Your task to perform on an android device: Clear the cart on amazon.com. Search for bose soundlink mini on amazon.com, select the first entry, and add it to the cart. Image 0: 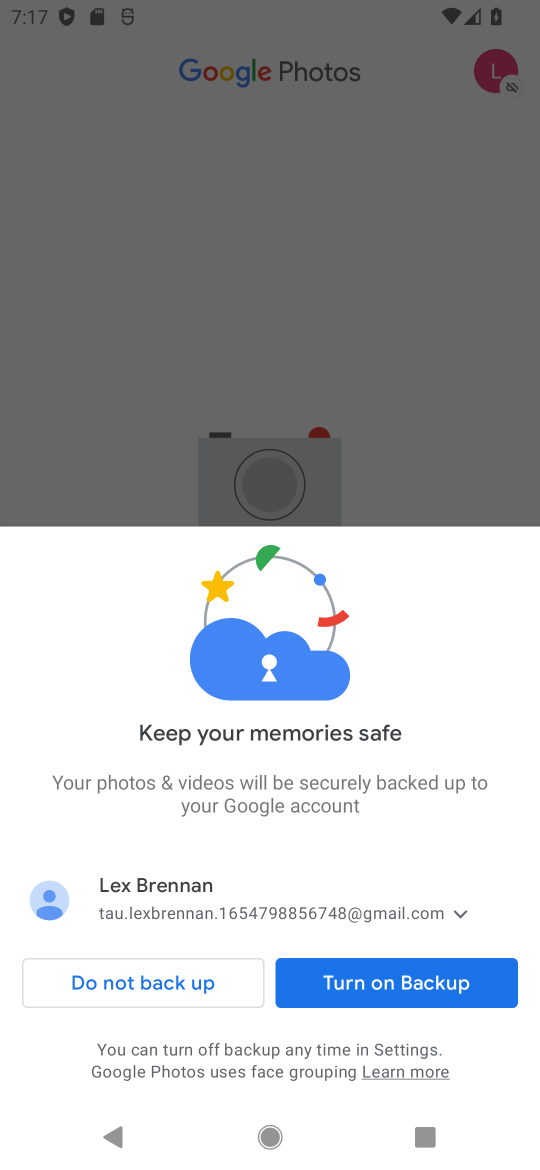
Step 0: press home button
Your task to perform on an android device: Clear the cart on amazon.com. Search for bose soundlink mini on amazon.com, select the first entry, and add it to the cart. Image 1: 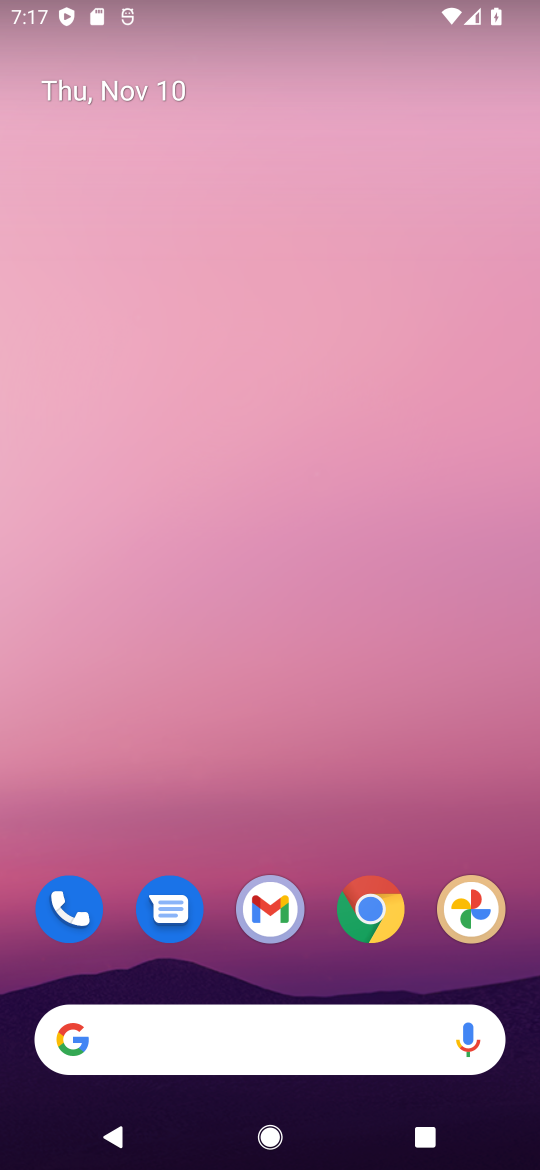
Step 1: drag from (146, 974) to (272, 232)
Your task to perform on an android device: Clear the cart on amazon.com. Search for bose soundlink mini on amazon.com, select the first entry, and add it to the cart. Image 2: 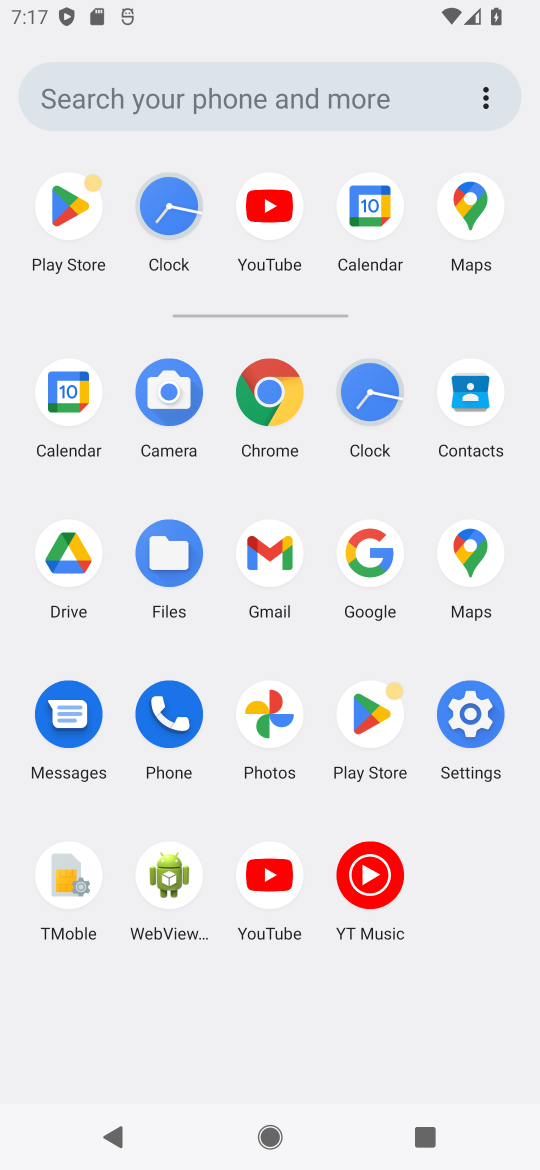
Step 2: click (353, 550)
Your task to perform on an android device: Clear the cart on amazon.com. Search for bose soundlink mini on amazon.com, select the first entry, and add it to the cart. Image 3: 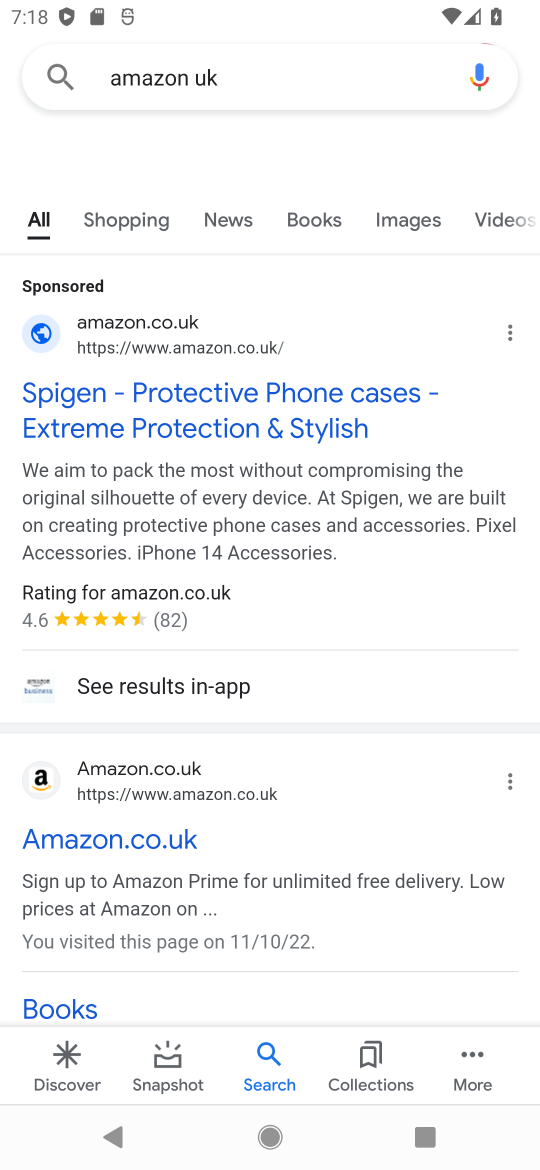
Step 3: click (243, 73)
Your task to perform on an android device: Clear the cart on amazon.com. Search for bose soundlink mini on amazon.com, select the first entry, and add it to the cart. Image 4: 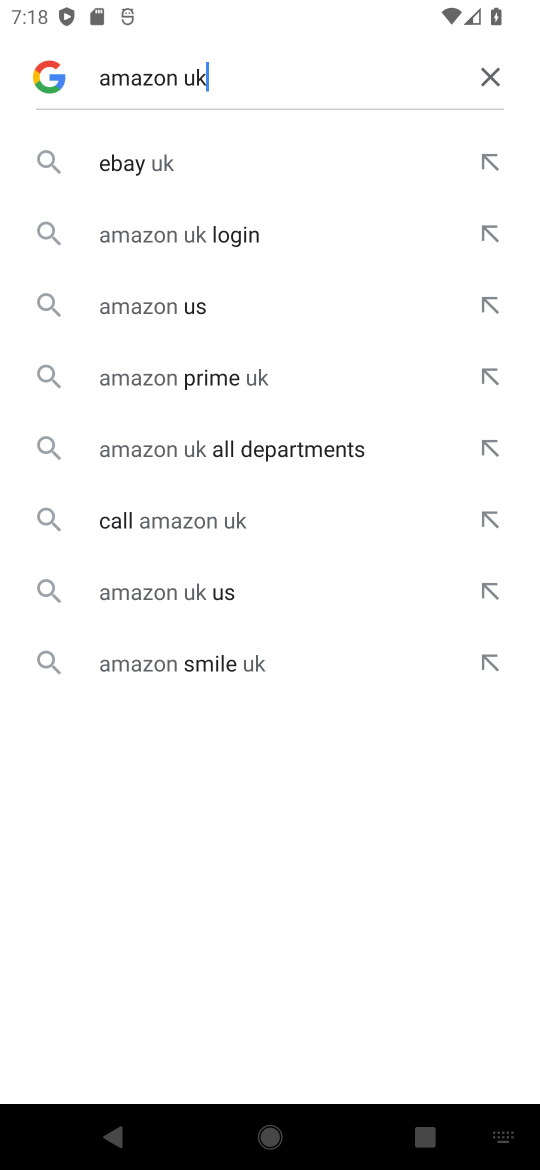
Step 4: click (169, 301)
Your task to perform on an android device: Clear the cart on amazon.com. Search for bose soundlink mini on amazon.com, select the first entry, and add it to the cart. Image 5: 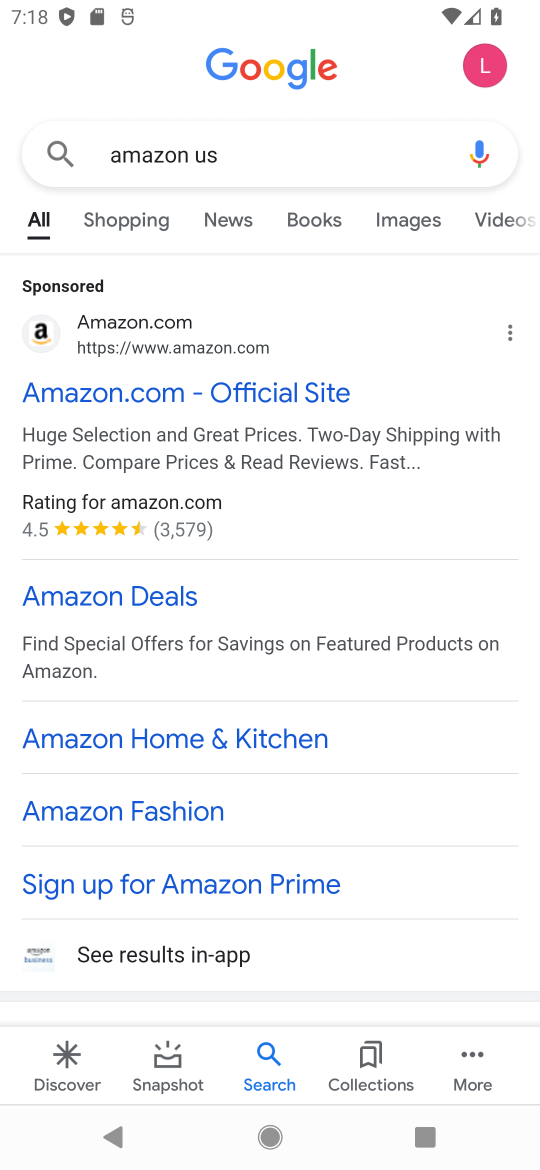
Step 5: click (29, 329)
Your task to perform on an android device: Clear the cart on amazon.com. Search for bose soundlink mini on amazon.com, select the first entry, and add it to the cart. Image 6: 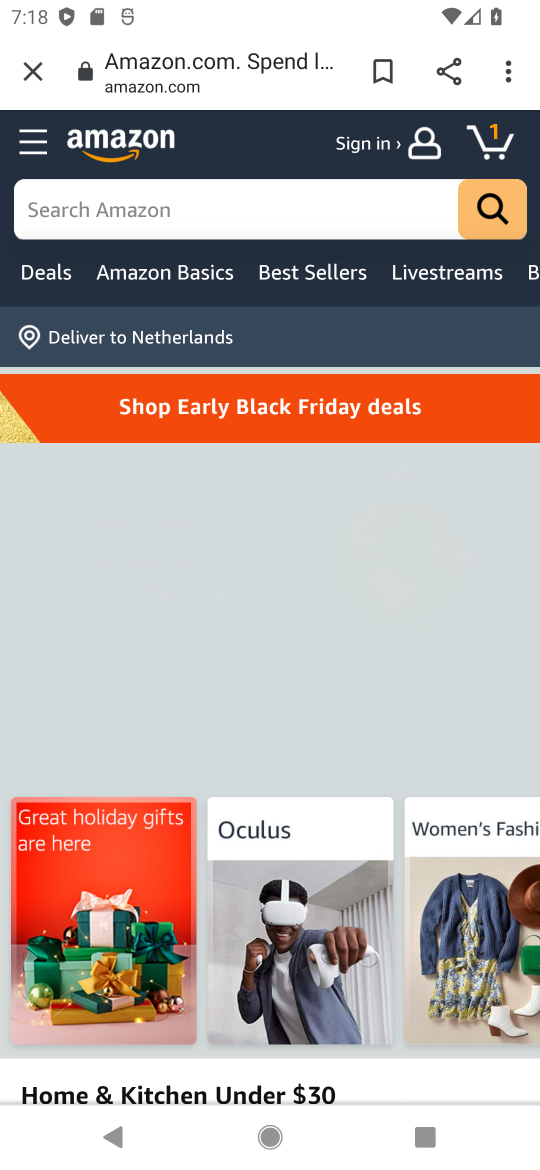
Step 6: click (219, 201)
Your task to perform on an android device: Clear the cart on amazon.com. Search for bose soundlink mini on amazon.com, select the first entry, and add it to the cart. Image 7: 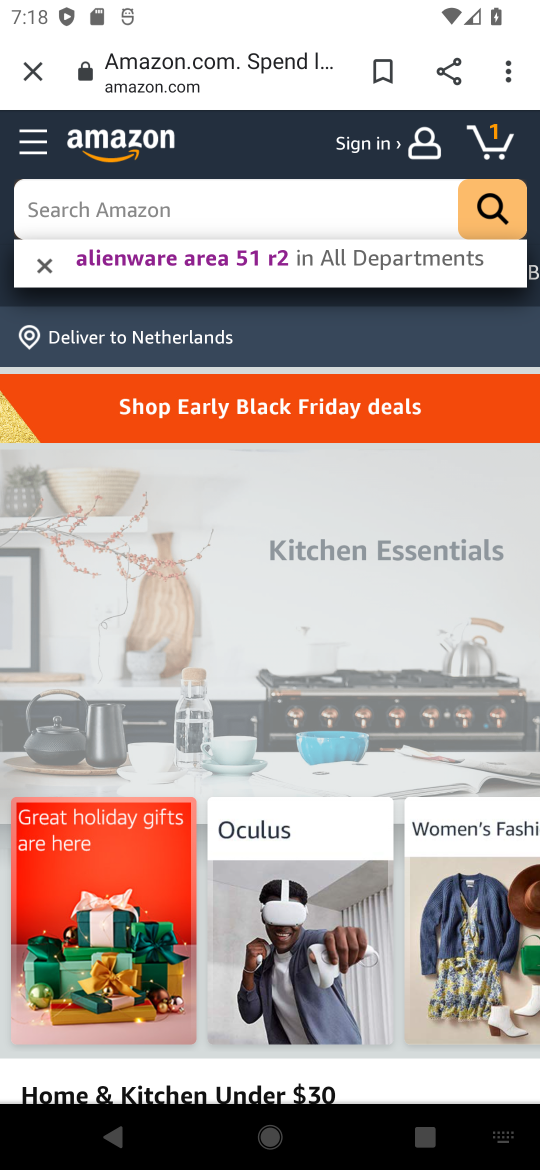
Step 7: type " bose soundlink mini  "
Your task to perform on an android device: Clear the cart on amazon.com. Search for bose soundlink mini on amazon.com, select the first entry, and add it to the cart. Image 8: 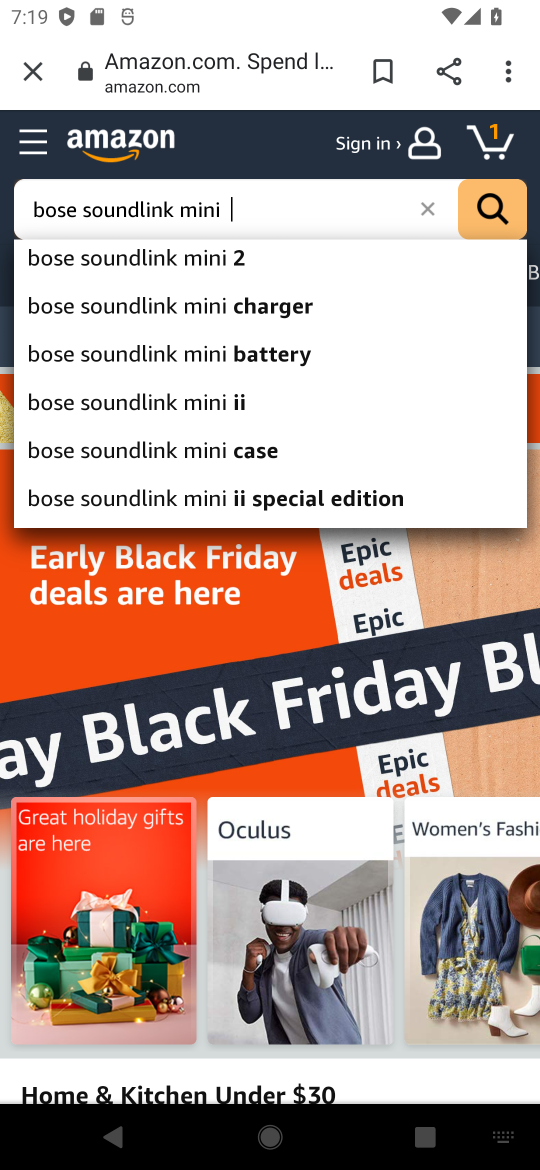
Step 8: click (119, 256)
Your task to perform on an android device: Clear the cart on amazon.com. Search for bose soundlink mini on amazon.com, select the first entry, and add it to the cart. Image 9: 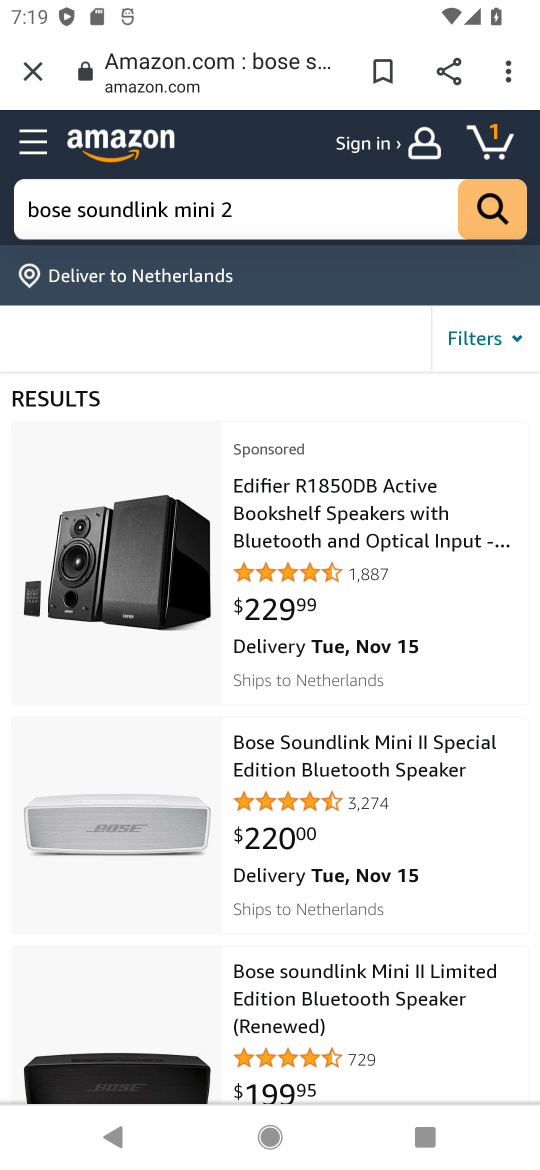
Step 9: click (353, 744)
Your task to perform on an android device: Clear the cart on amazon.com. Search for bose soundlink mini on amazon.com, select the first entry, and add it to the cart. Image 10: 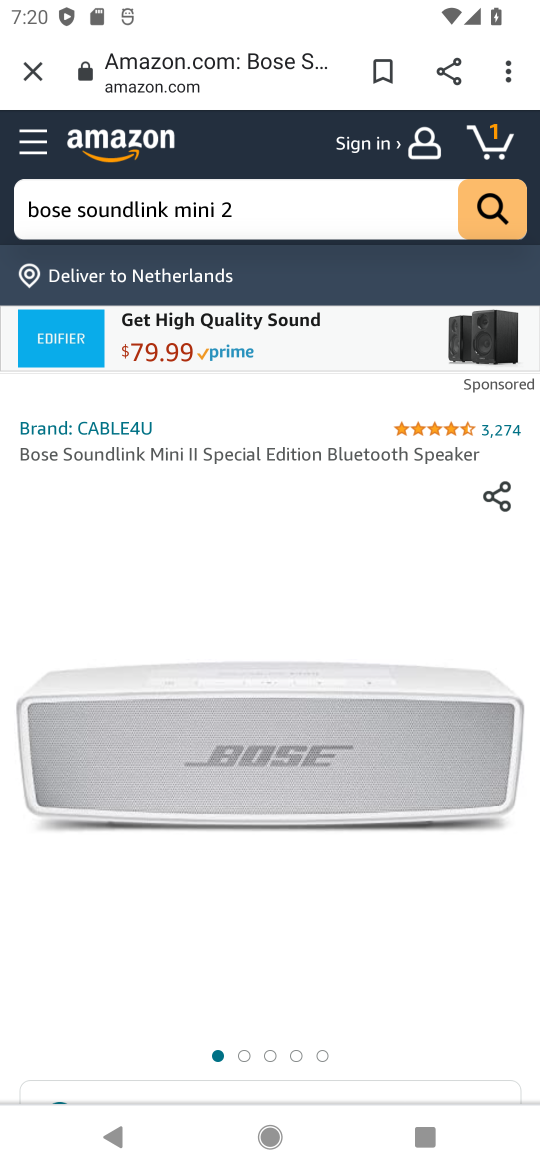
Step 10: drag from (358, 955) to (354, 391)
Your task to perform on an android device: Clear the cart on amazon.com. Search for bose soundlink mini on amazon.com, select the first entry, and add it to the cart. Image 11: 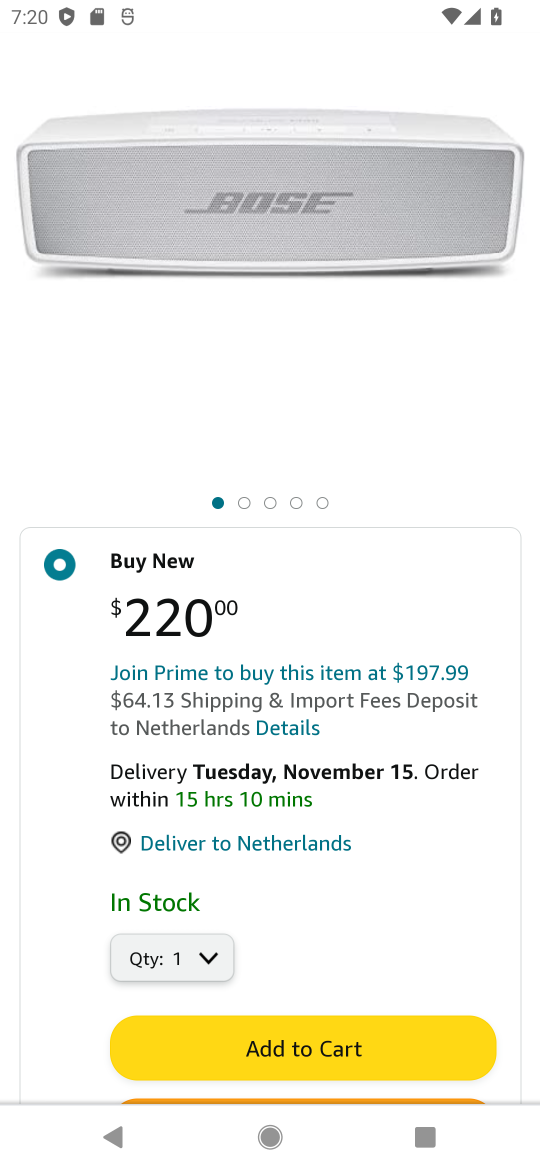
Step 11: click (409, 1048)
Your task to perform on an android device: Clear the cart on amazon.com. Search for bose soundlink mini on amazon.com, select the first entry, and add it to the cart. Image 12: 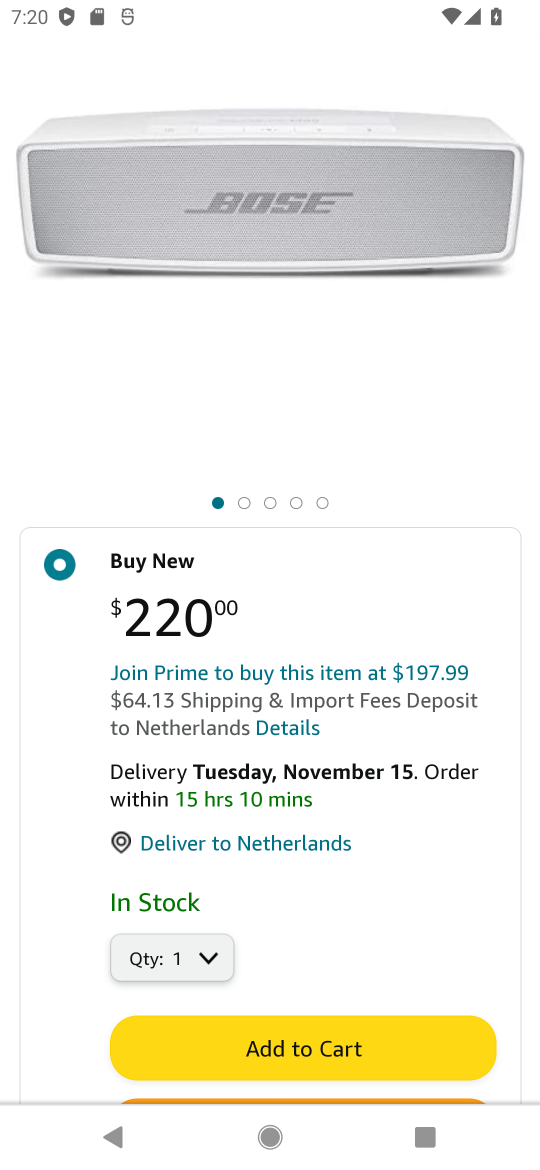
Step 12: click (416, 1051)
Your task to perform on an android device: Clear the cart on amazon.com. Search for bose soundlink mini on amazon.com, select the first entry, and add it to the cart. Image 13: 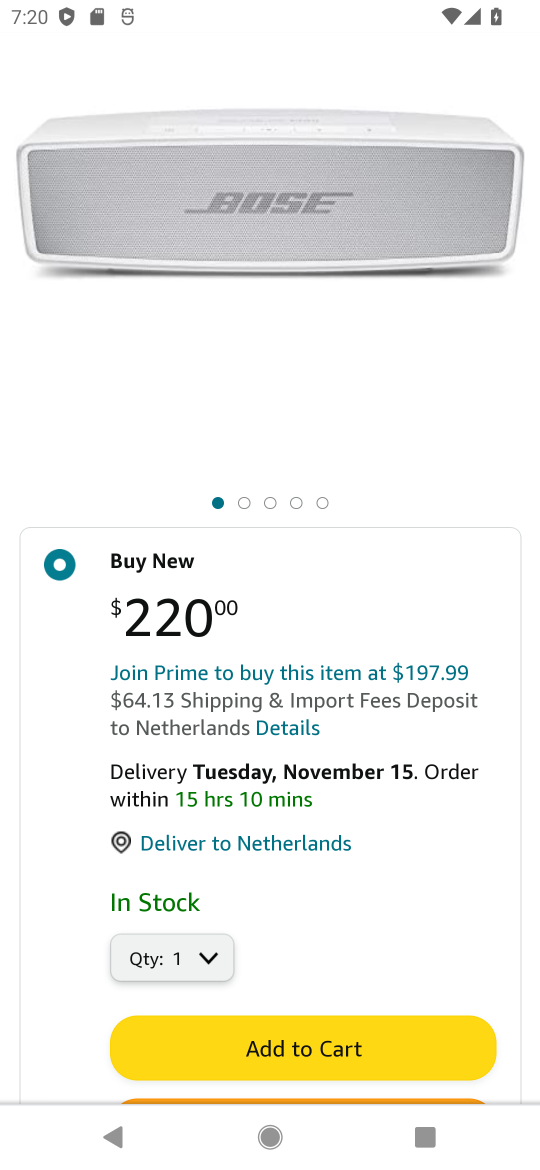
Step 13: drag from (410, 1048) to (353, 1045)
Your task to perform on an android device: Clear the cart on amazon.com. Search for bose soundlink mini on amazon.com, select the first entry, and add it to the cart. Image 14: 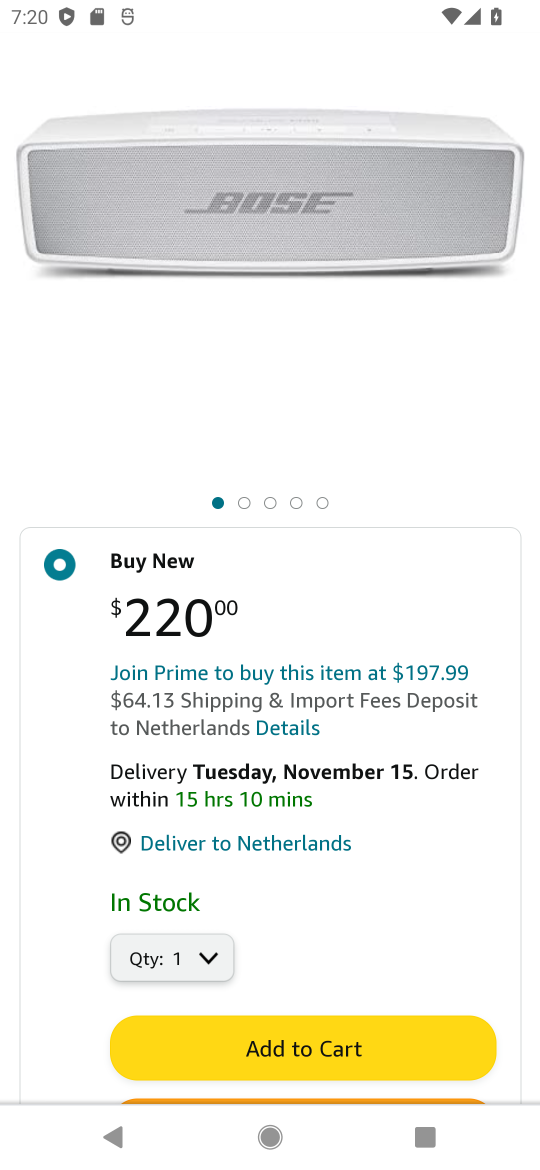
Step 14: drag from (385, 999) to (392, 691)
Your task to perform on an android device: Clear the cart on amazon.com. Search for bose soundlink mini on amazon.com, select the first entry, and add it to the cart. Image 15: 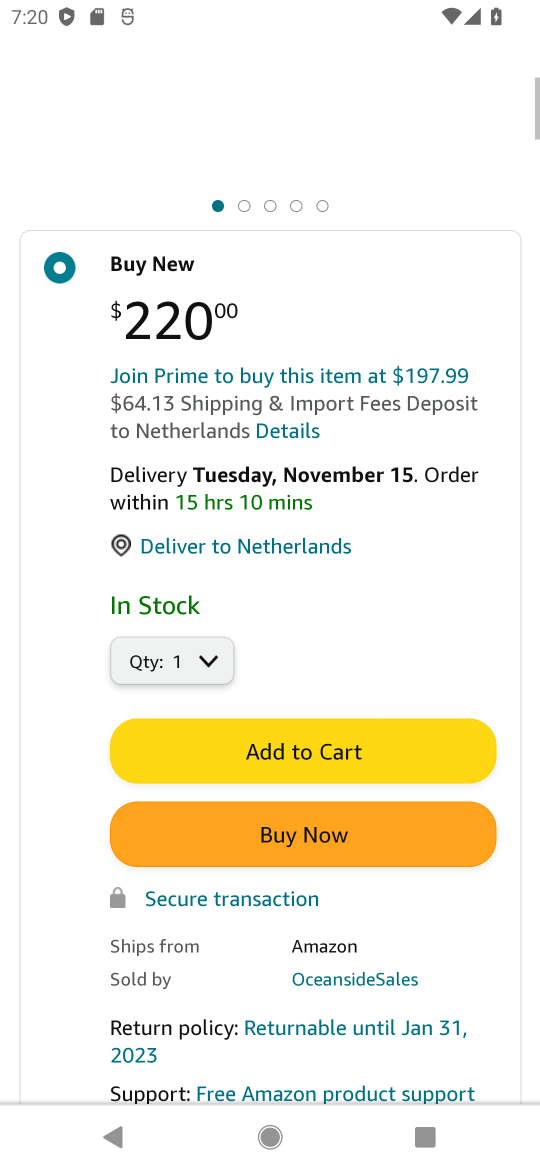
Step 15: drag from (348, 900) to (342, 788)
Your task to perform on an android device: Clear the cart on amazon.com. Search for bose soundlink mini on amazon.com, select the first entry, and add it to the cart. Image 16: 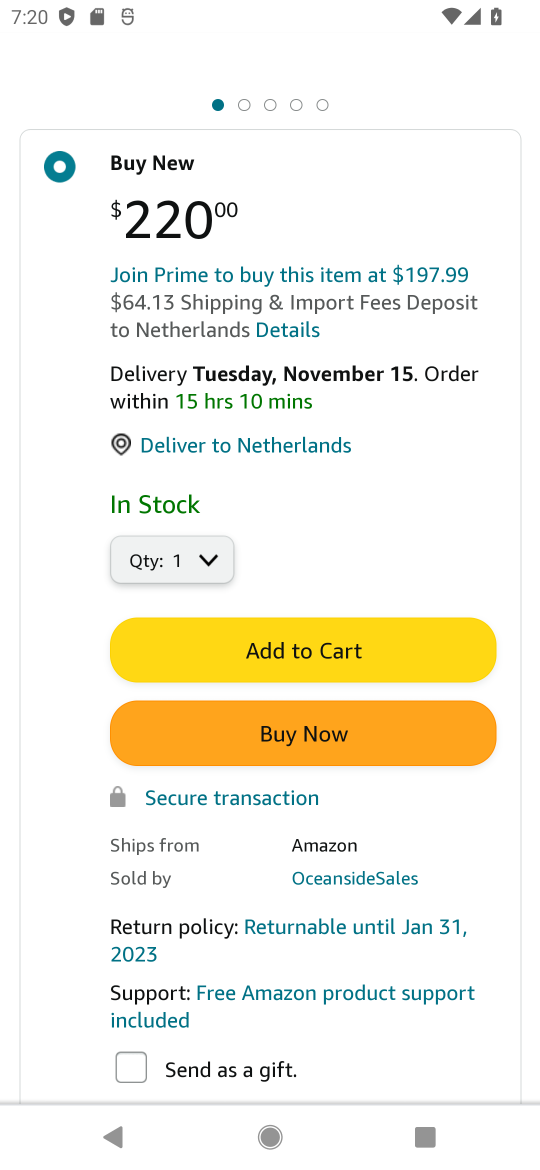
Step 16: click (310, 641)
Your task to perform on an android device: Clear the cart on amazon.com. Search for bose soundlink mini on amazon.com, select the first entry, and add it to the cart. Image 17: 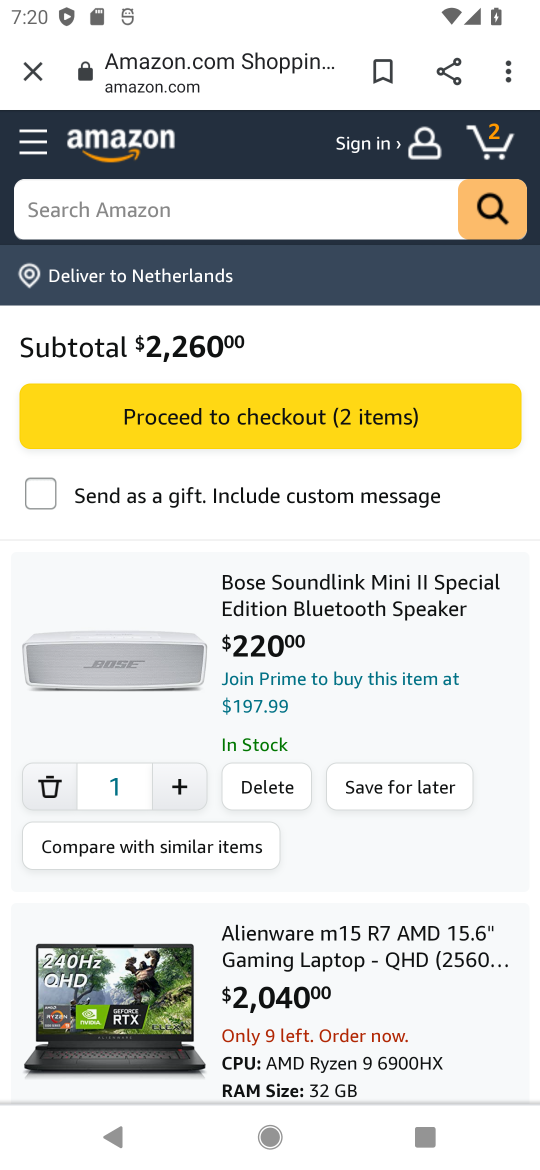
Step 17: task complete